Your task to perform on an android device: Set the phone to "Do not disturb". Image 0: 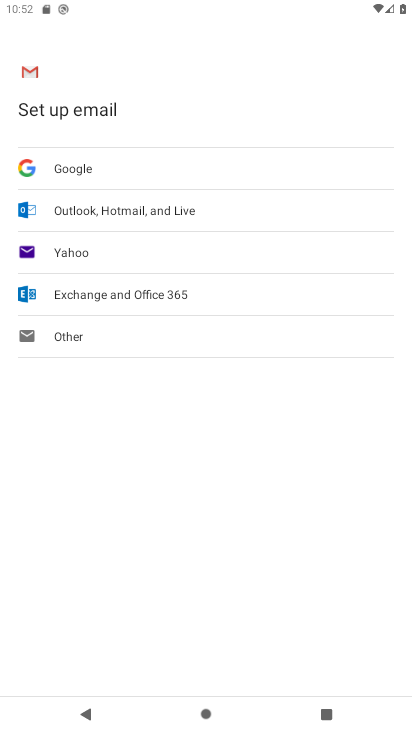
Step 0: press home button
Your task to perform on an android device: Set the phone to "Do not disturb". Image 1: 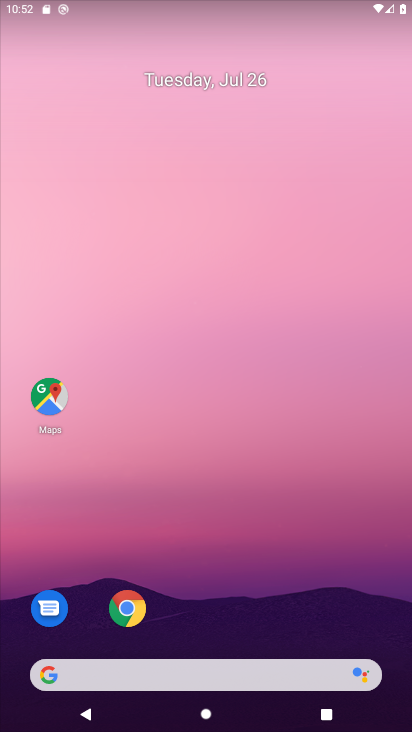
Step 1: drag from (286, 564) to (316, 28)
Your task to perform on an android device: Set the phone to "Do not disturb". Image 2: 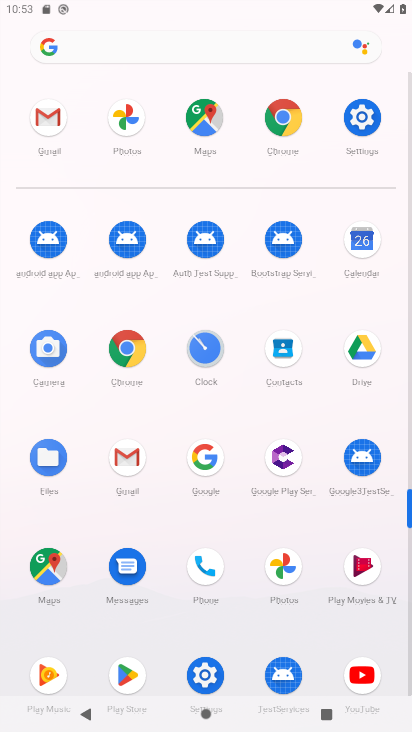
Step 2: drag from (264, 9) to (268, 519)
Your task to perform on an android device: Set the phone to "Do not disturb". Image 3: 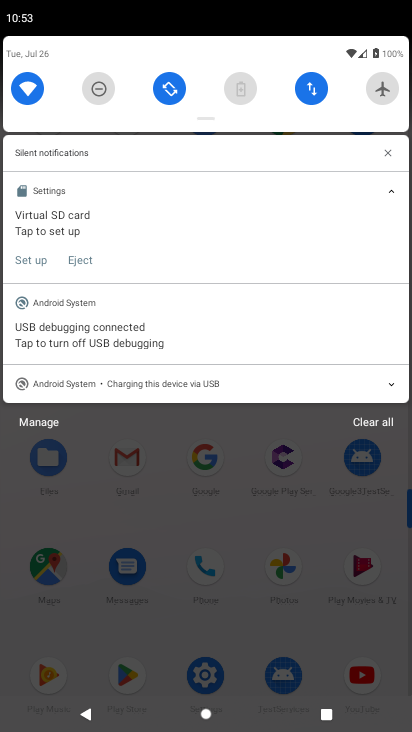
Step 3: click (95, 88)
Your task to perform on an android device: Set the phone to "Do not disturb". Image 4: 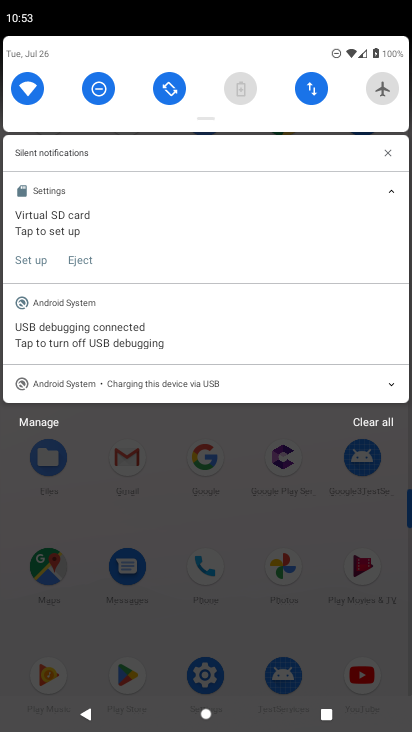
Step 4: task complete